Your task to perform on an android device: Do I have any events today? Image 0: 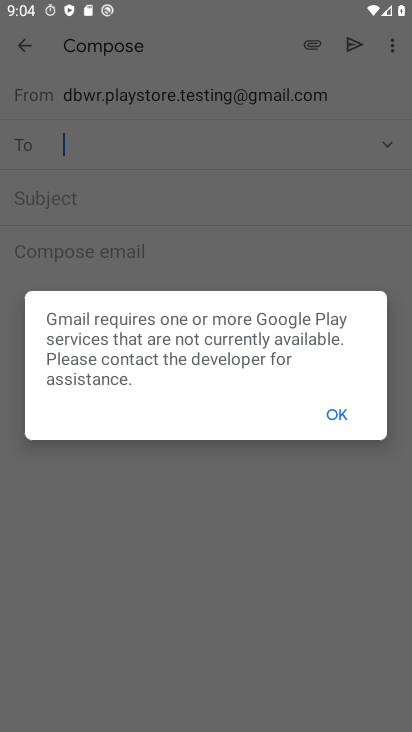
Step 0: press back button
Your task to perform on an android device: Do I have any events today? Image 1: 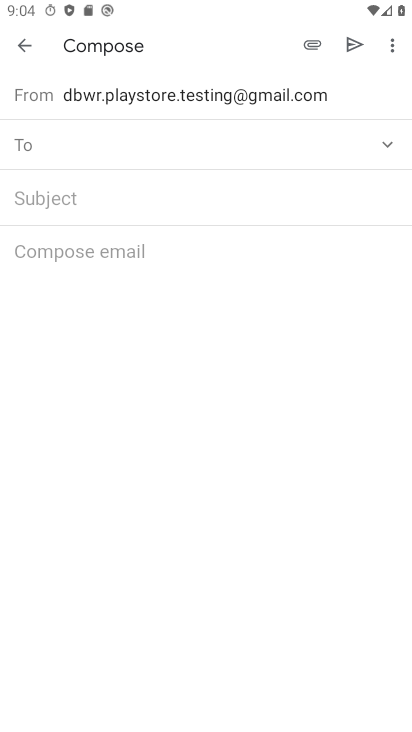
Step 1: click (22, 45)
Your task to perform on an android device: Do I have any events today? Image 2: 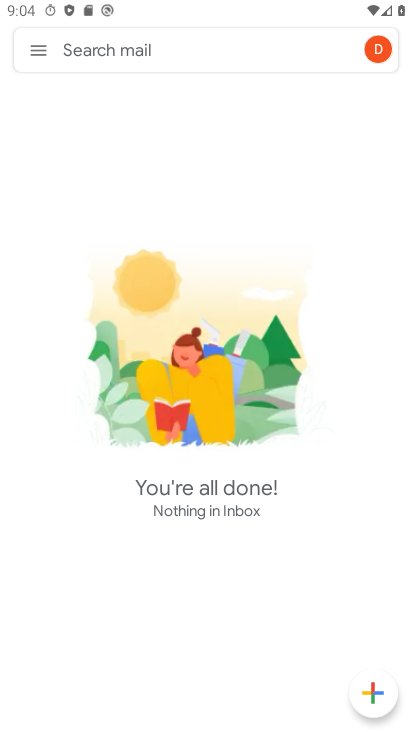
Step 2: press home button
Your task to perform on an android device: Do I have any events today? Image 3: 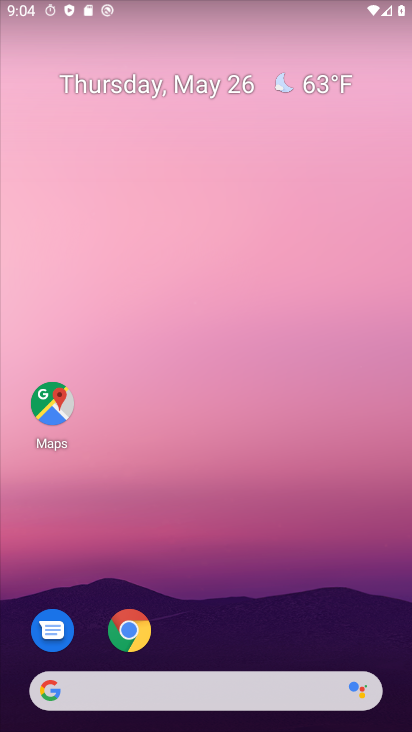
Step 3: drag from (187, 557) to (128, 177)
Your task to perform on an android device: Do I have any events today? Image 4: 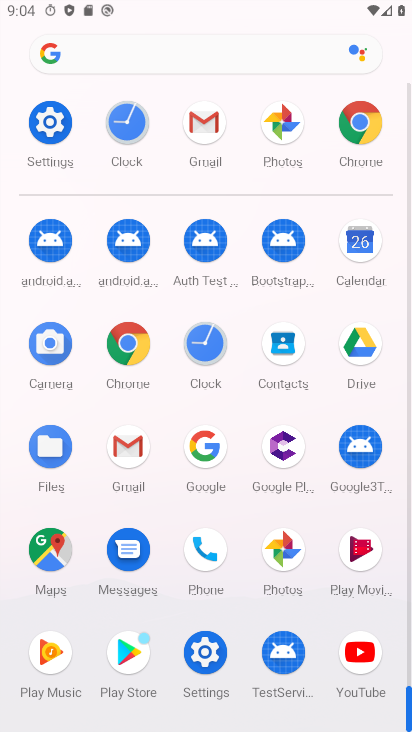
Step 4: click (350, 246)
Your task to perform on an android device: Do I have any events today? Image 5: 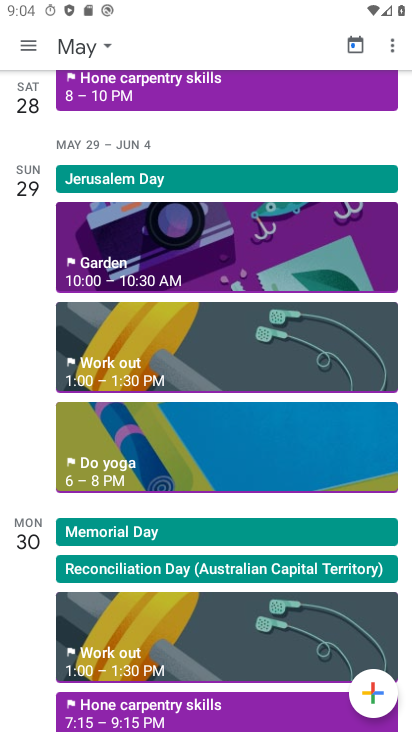
Step 5: press back button
Your task to perform on an android device: Do I have any events today? Image 6: 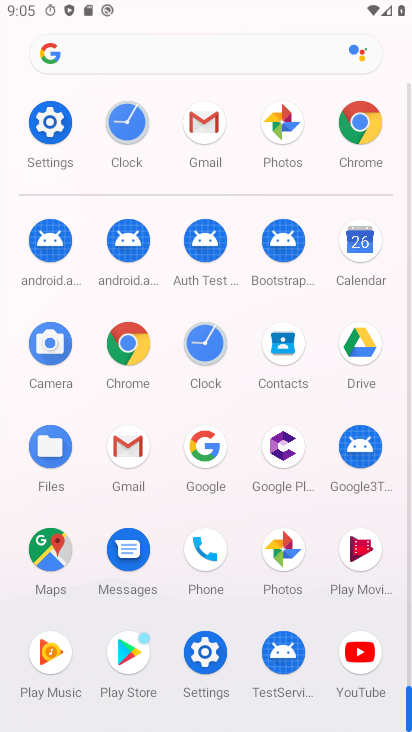
Step 6: click (354, 244)
Your task to perform on an android device: Do I have any events today? Image 7: 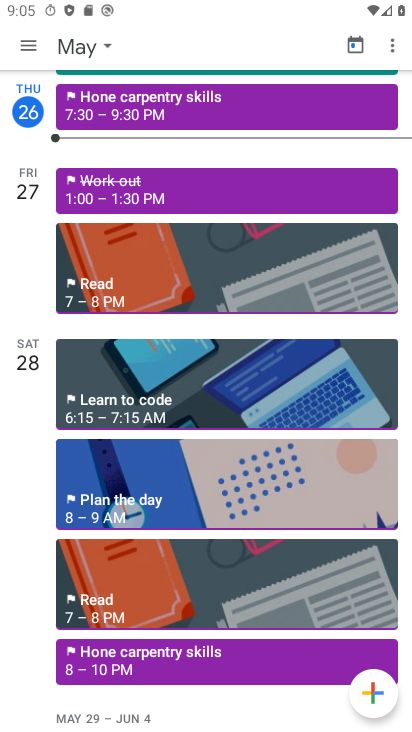
Step 7: click (115, 188)
Your task to perform on an android device: Do I have any events today? Image 8: 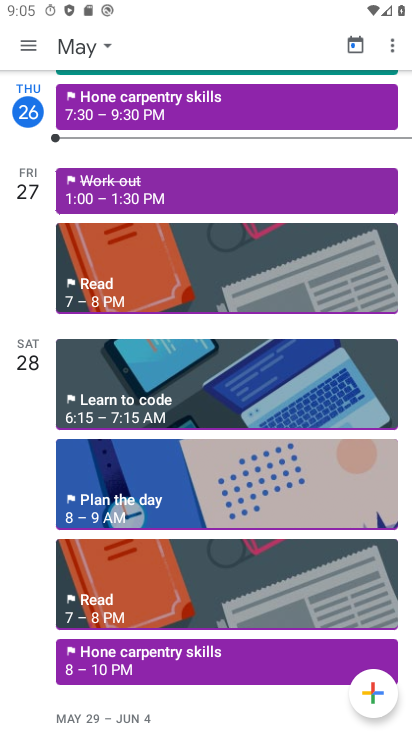
Step 8: click (122, 186)
Your task to perform on an android device: Do I have any events today? Image 9: 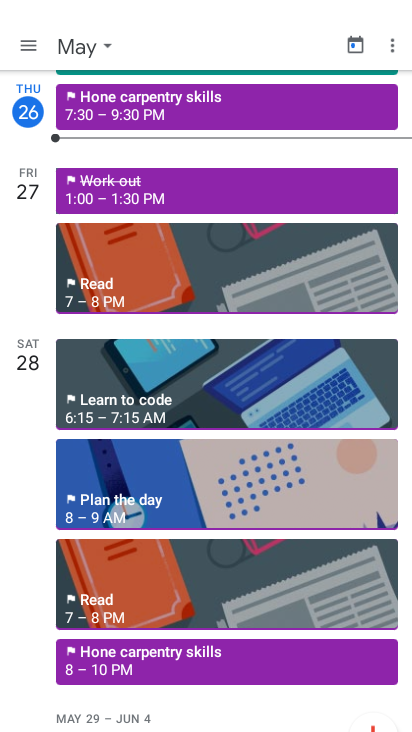
Step 9: click (126, 186)
Your task to perform on an android device: Do I have any events today? Image 10: 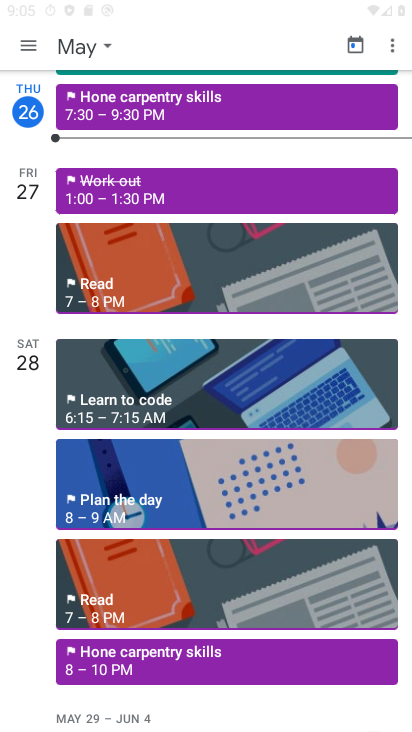
Step 10: click (133, 193)
Your task to perform on an android device: Do I have any events today? Image 11: 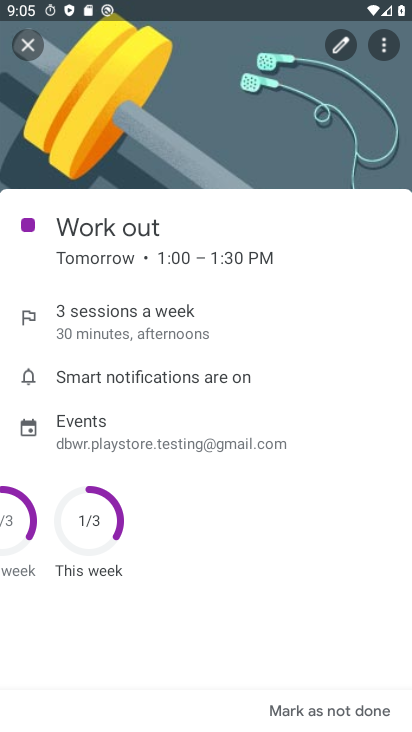
Step 11: task complete